Your task to perform on an android device: Toggle the flashlight Image 0: 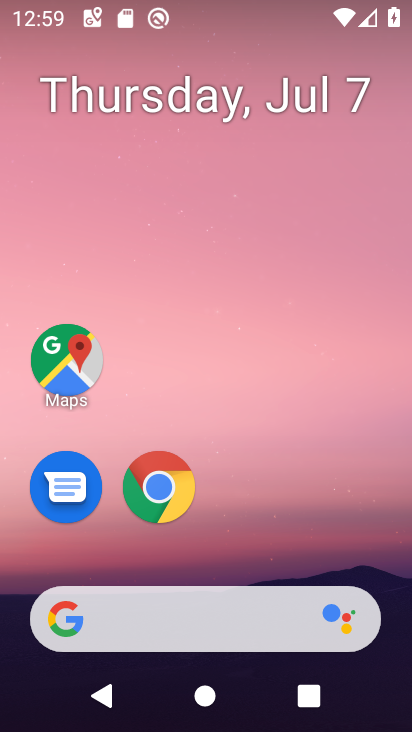
Step 0: drag from (226, 6) to (262, 507)
Your task to perform on an android device: Toggle the flashlight Image 1: 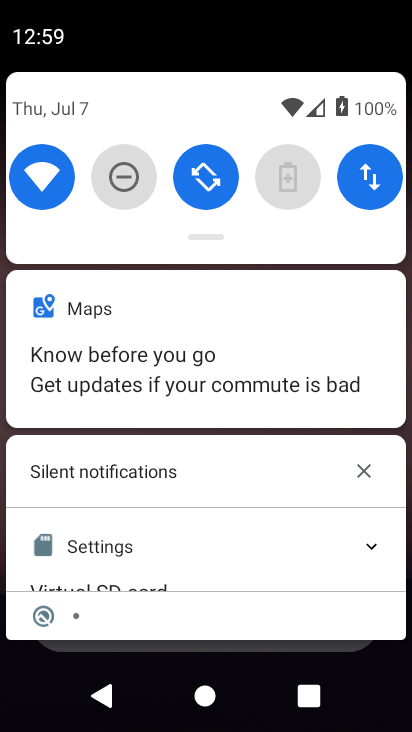
Step 1: drag from (241, 109) to (247, 425)
Your task to perform on an android device: Toggle the flashlight Image 2: 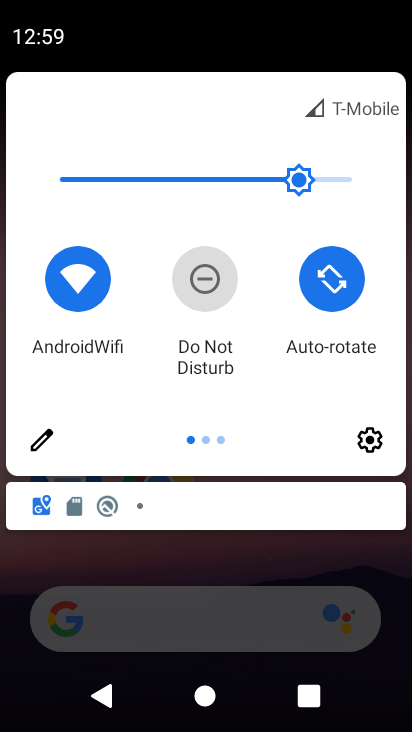
Step 2: click (37, 445)
Your task to perform on an android device: Toggle the flashlight Image 3: 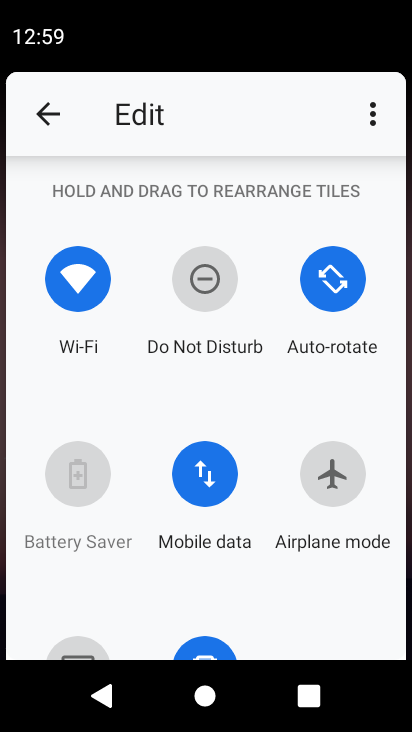
Step 3: task complete